Your task to perform on an android device: toggle sleep mode Image 0: 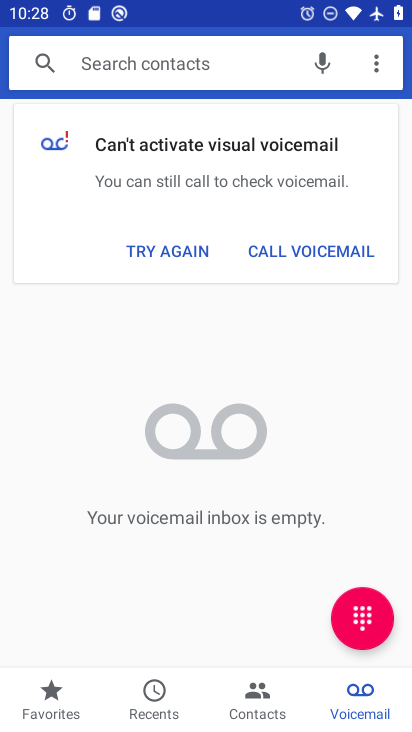
Step 0: press home button
Your task to perform on an android device: toggle sleep mode Image 1: 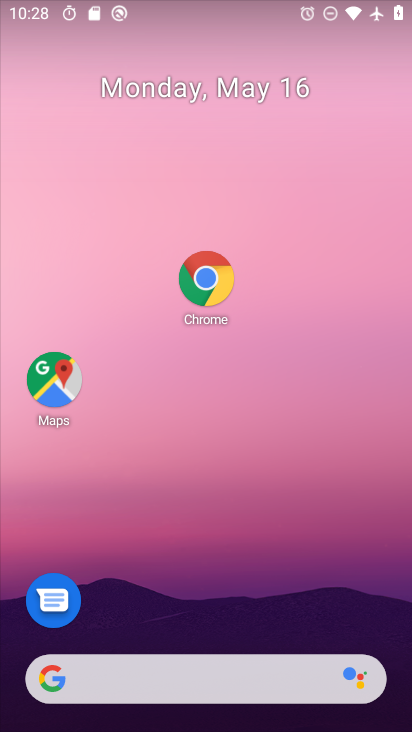
Step 1: drag from (186, 691) to (354, 154)
Your task to perform on an android device: toggle sleep mode Image 2: 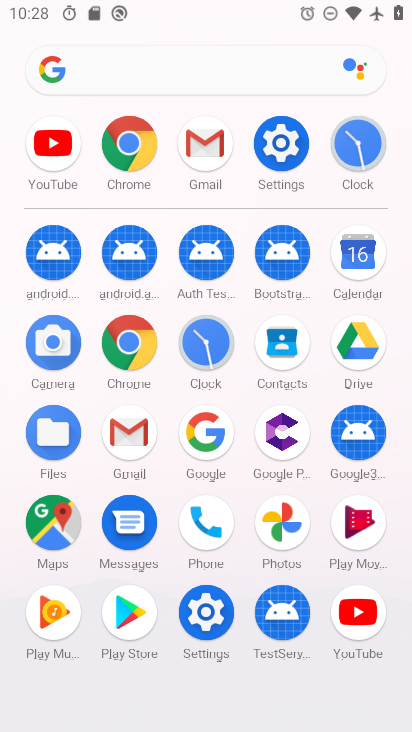
Step 2: click (291, 146)
Your task to perform on an android device: toggle sleep mode Image 3: 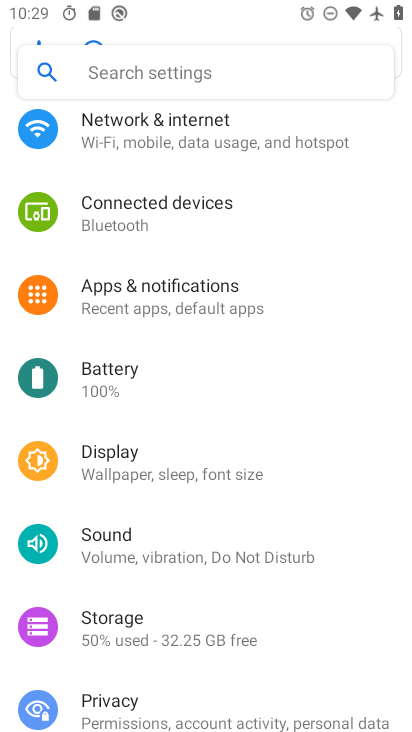
Step 3: click (224, 475)
Your task to perform on an android device: toggle sleep mode Image 4: 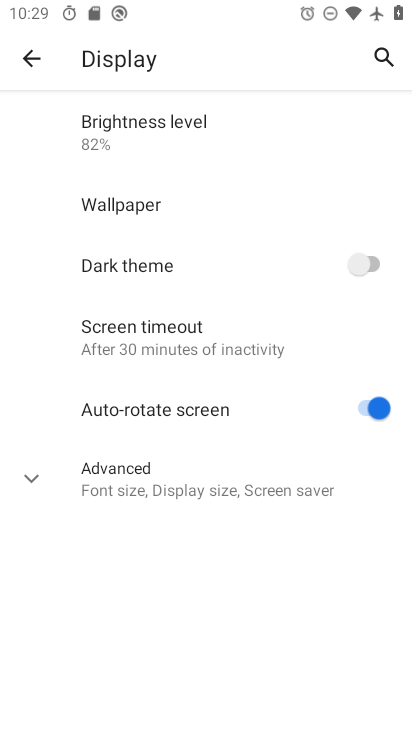
Step 4: click (200, 486)
Your task to perform on an android device: toggle sleep mode Image 5: 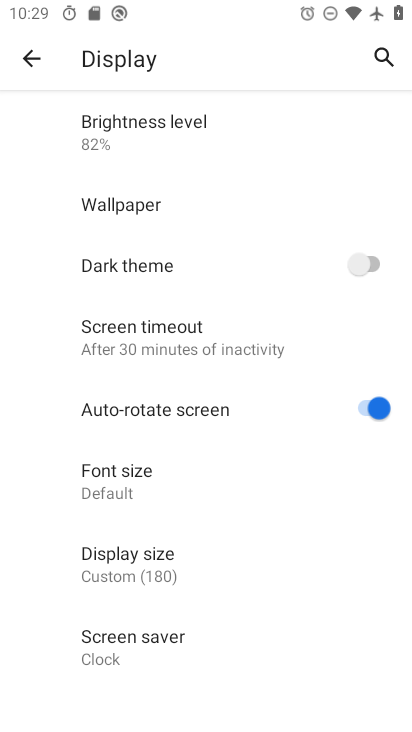
Step 5: task complete